Your task to perform on an android device: turn notification dots on Image 0: 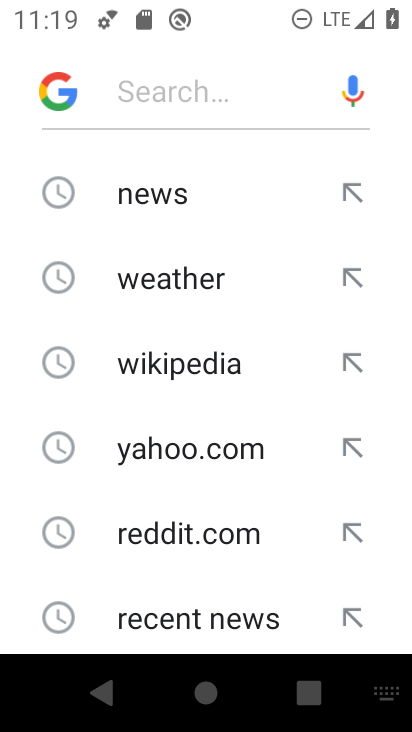
Step 0: press home button
Your task to perform on an android device: turn notification dots on Image 1: 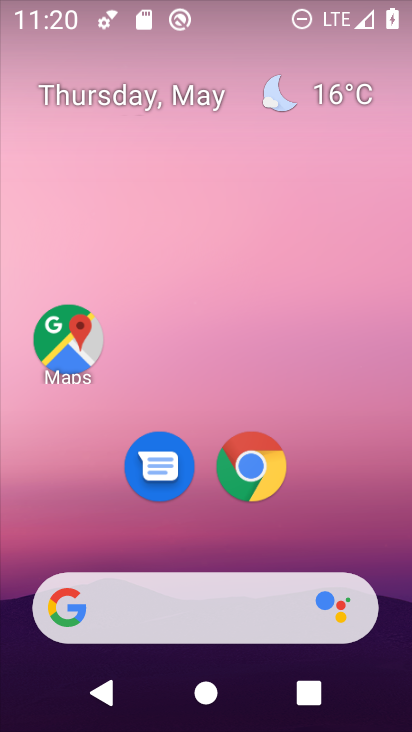
Step 1: drag from (344, 409) to (314, 141)
Your task to perform on an android device: turn notification dots on Image 2: 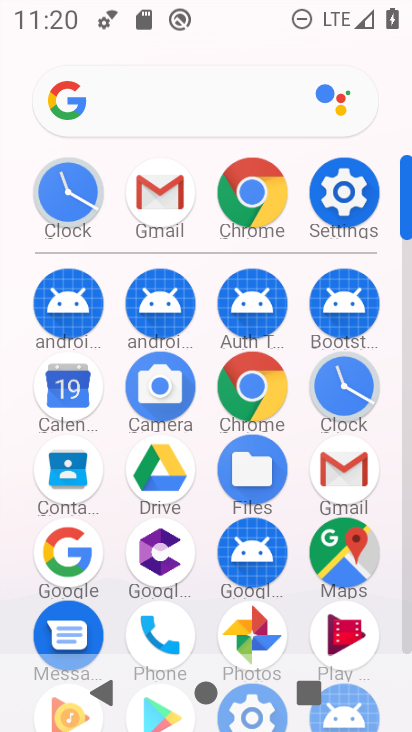
Step 2: click (335, 194)
Your task to perform on an android device: turn notification dots on Image 3: 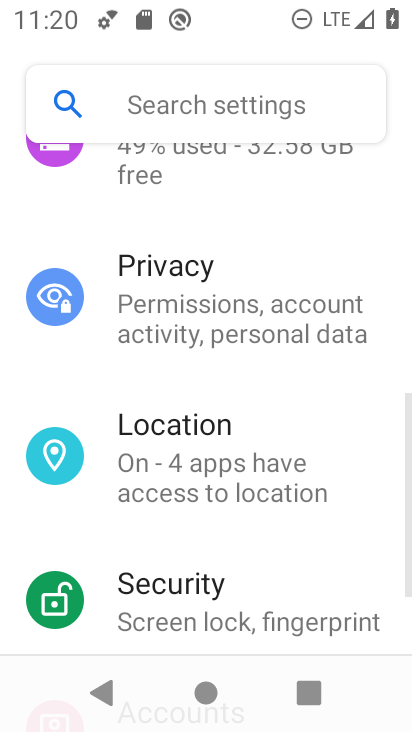
Step 3: click (179, 103)
Your task to perform on an android device: turn notification dots on Image 4: 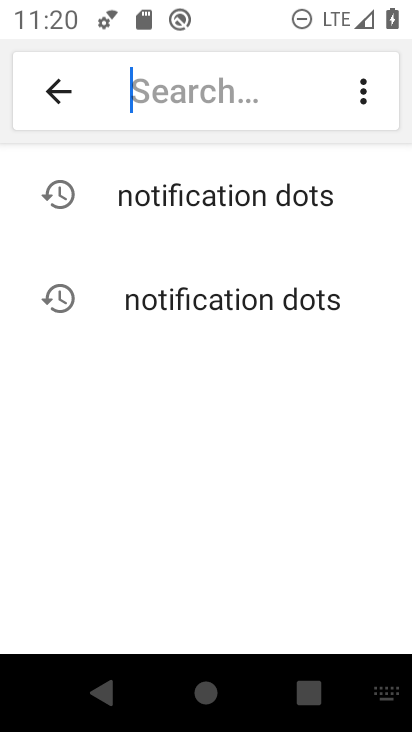
Step 4: click (156, 213)
Your task to perform on an android device: turn notification dots on Image 5: 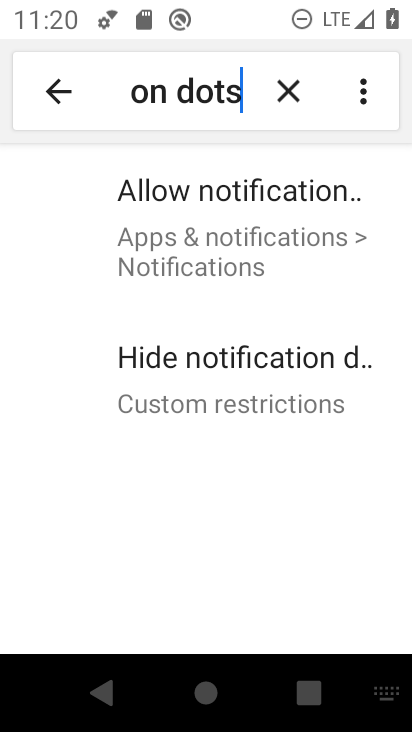
Step 5: click (255, 203)
Your task to perform on an android device: turn notification dots on Image 6: 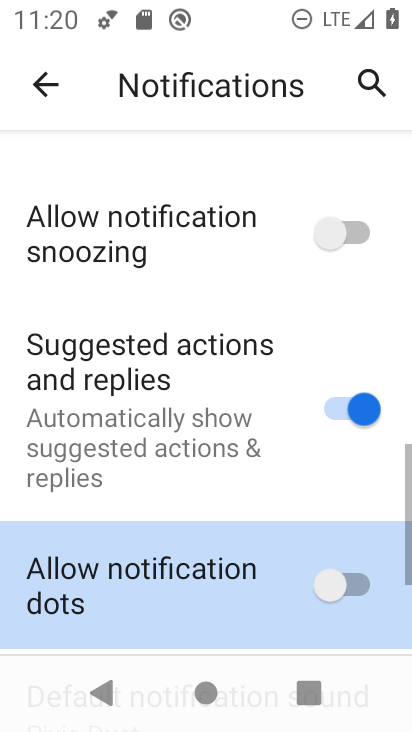
Step 6: click (351, 567)
Your task to perform on an android device: turn notification dots on Image 7: 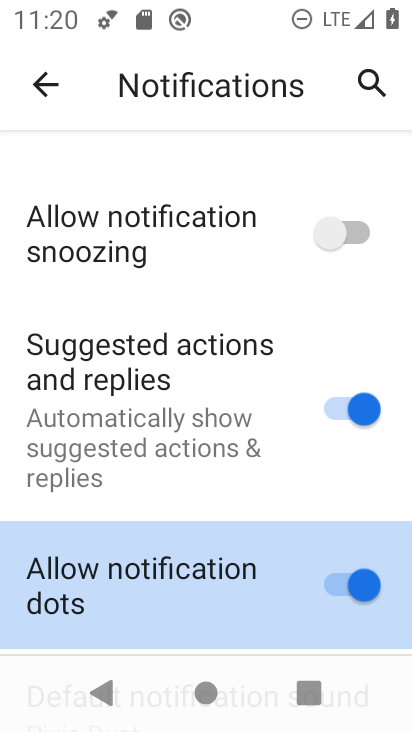
Step 7: task complete